Your task to perform on an android device: Show me the alarms in the clock app Image 0: 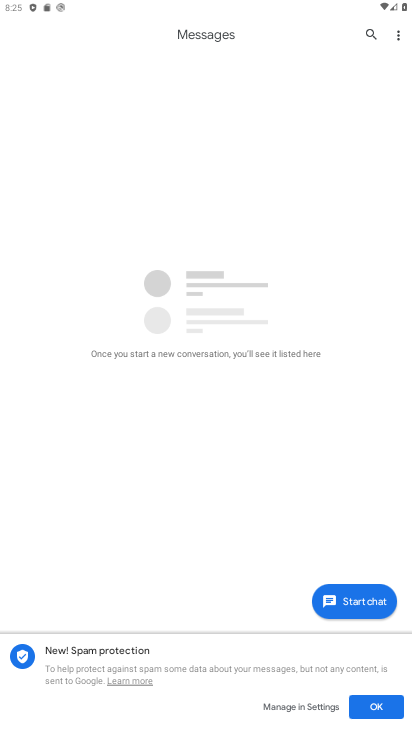
Step 0: click (144, 663)
Your task to perform on an android device: Show me the alarms in the clock app Image 1: 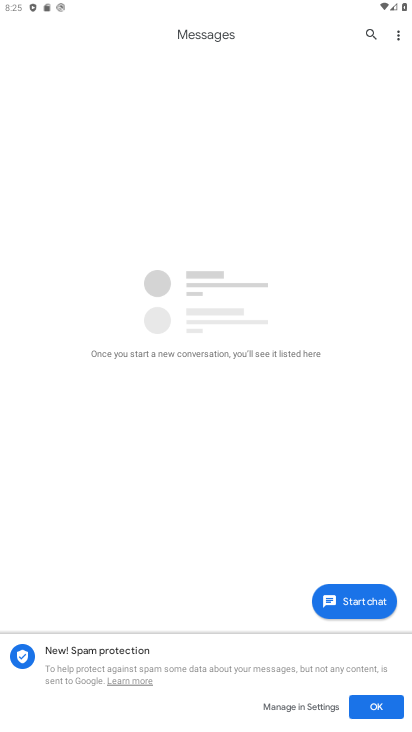
Step 1: press home button
Your task to perform on an android device: Show me the alarms in the clock app Image 2: 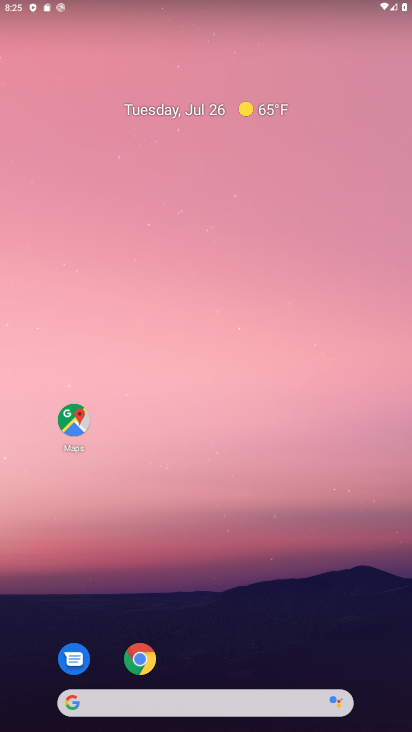
Step 2: click (210, 109)
Your task to perform on an android device: Show me the alarms in the clock app Image 3: 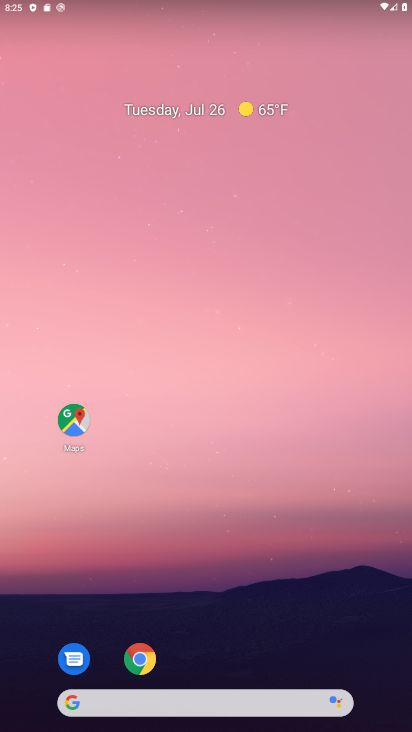
Step 3: drag from (194, 625) to (190, 95)
Your task to perform on an android device: Show me the alarms in the clock app Image 4: 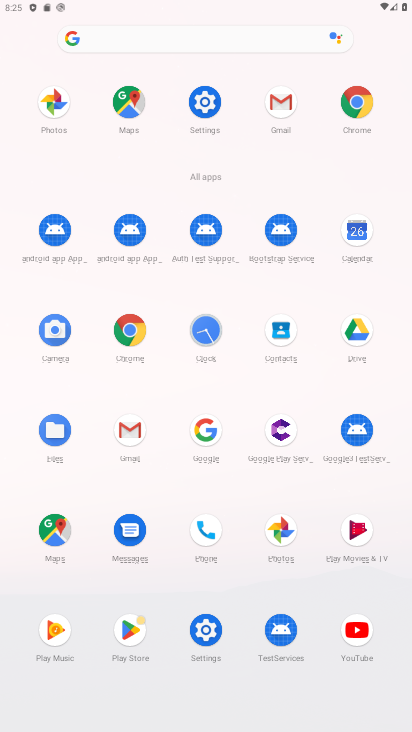
Step 4: click (212, 345)
Your task to perform on an android device: Show me the alarms in the clock app Image 5: 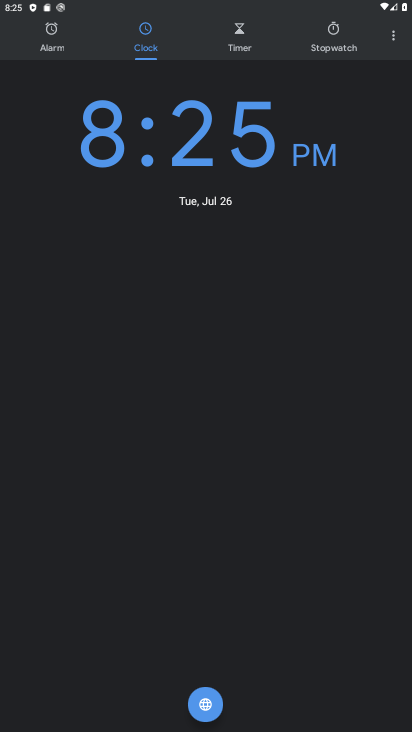
Step 5: click (56, 52)
Your task to perform on an android device: Show me the alarms in the clock app Image 6: 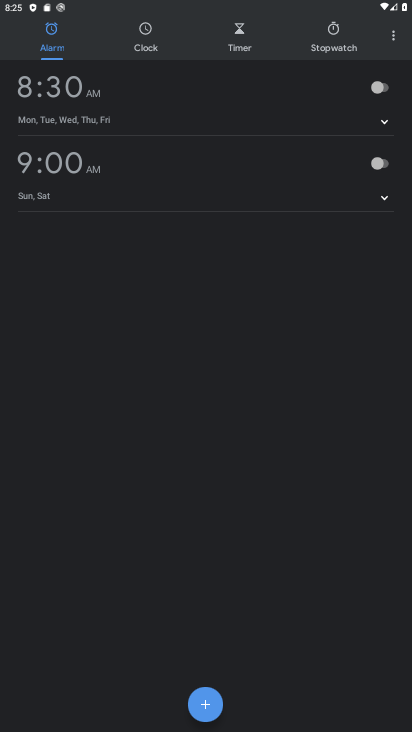
Step 6: task complete